Your task to perform on an android device: turn on showing notifications on the lock screen Image 0: 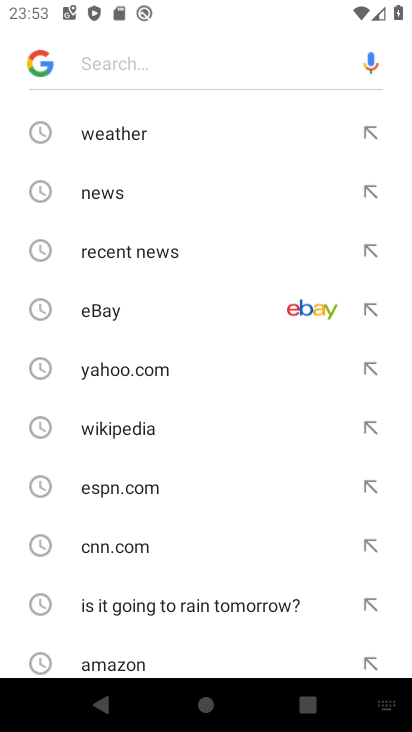
Step 0: drag from (193, 550) to (252, 185)
Your task to perform on an android device: turn on showing notifications on the lock screen Image 1: 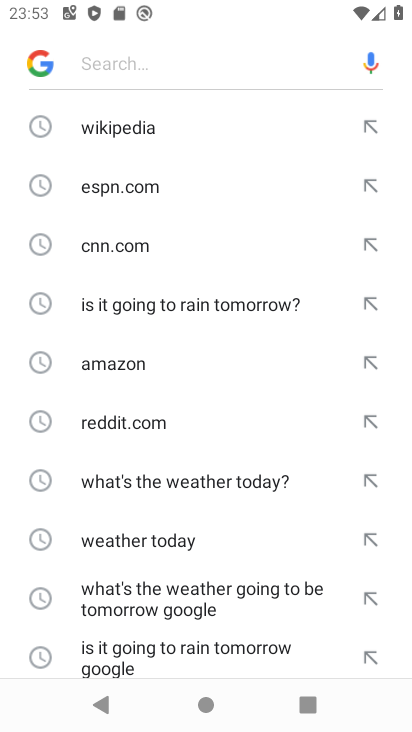
Step 1: drag from (232, 351) to (267, 726)
Your task to perform on an android device: turn on showing notifications on the lock screen Image 2: 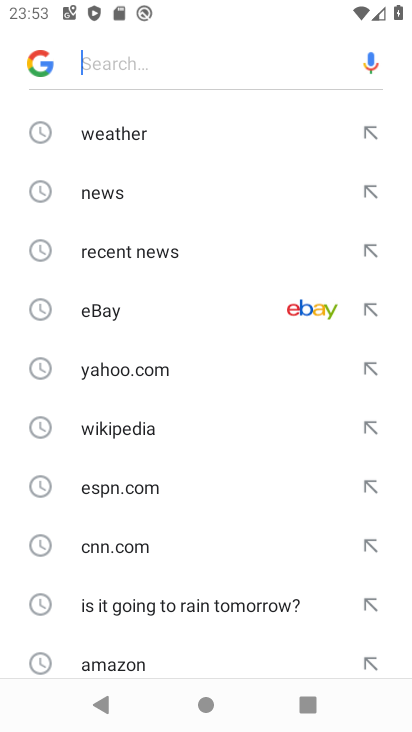
Step 2: drag from (169, 613) to (226, 299)
Your task to perform on an android device: turn on showing notifications on the lock screen Image 3: 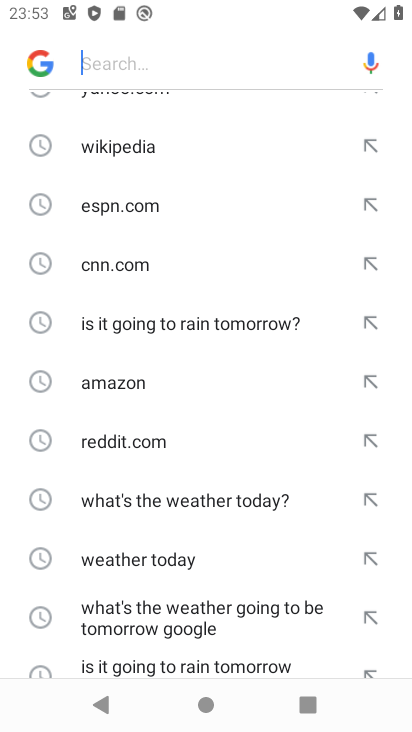
Step 3: drag from (224, 287) to (284, 726)
Your task to perform on an android device: turn on showing notifications on the lock screen Image 4: 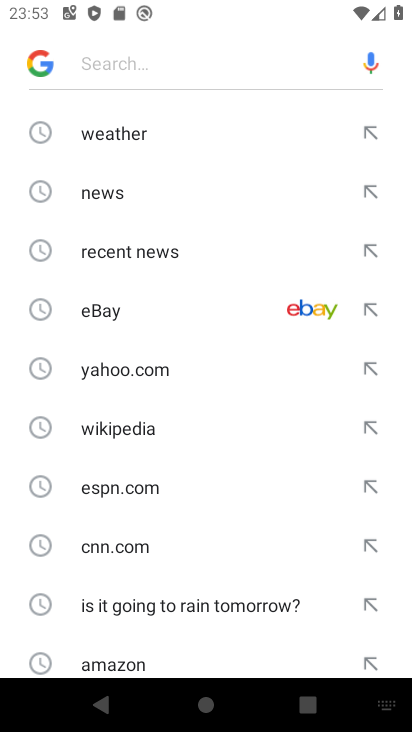
Step 4: drag from (216, 527) to (349, 189)
Your task to perform on an android device: turn on showing notifications on the lock screen Image 5: 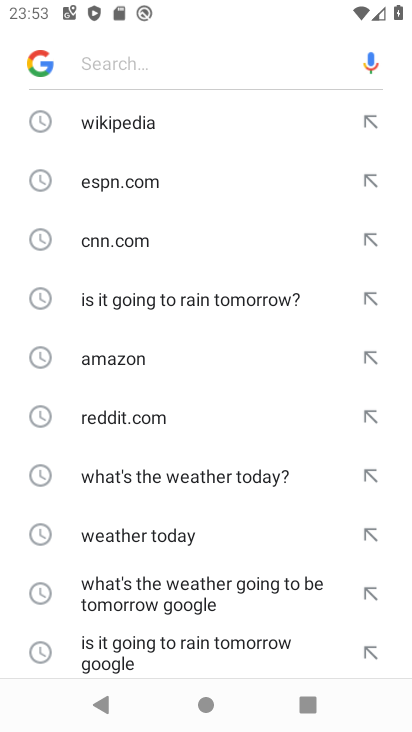
Step 5: drag from (276, 162) to (235, 692)
Your task to perform on an android device: turn on showing notifications on the lock screen Image 6: 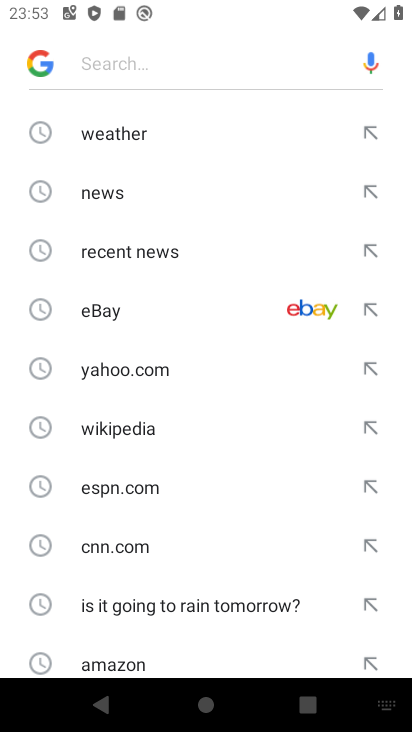
Step 6: drag from (206, 443) to (255, 191)
Your task to perform on an android device: turn on showing notifications on the lock screen Image 7: 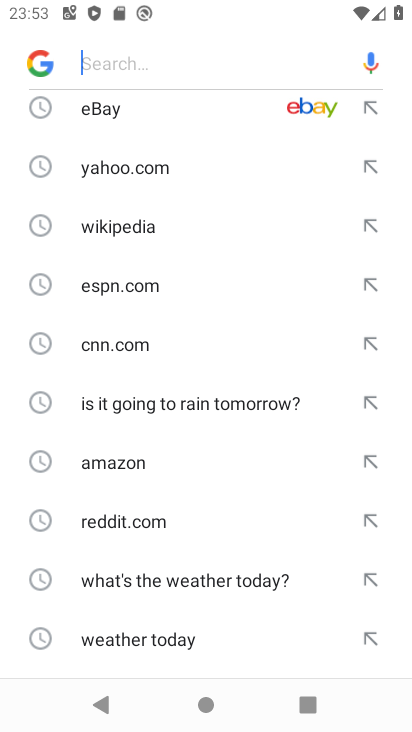
Step 7: drag from (256, 162) to (200, 695)
Your task to perform on an android device: turn on showing notifications on the lock screen Image 8: 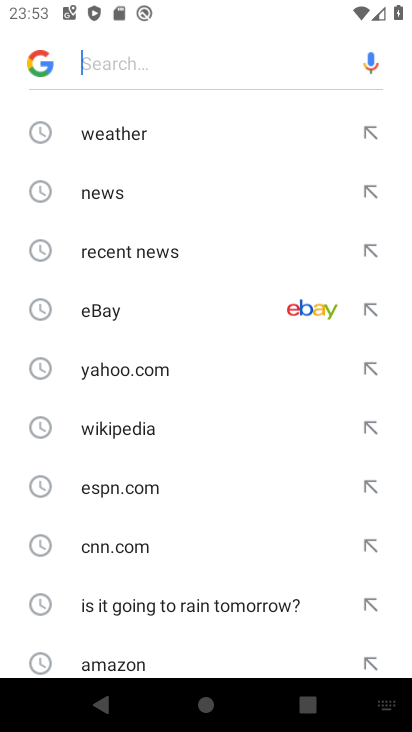
Step 8: drag from (206, 621) to (223, 289)
Your task to perform on an android device: turn on showing notifications on the lock screen Image 9: 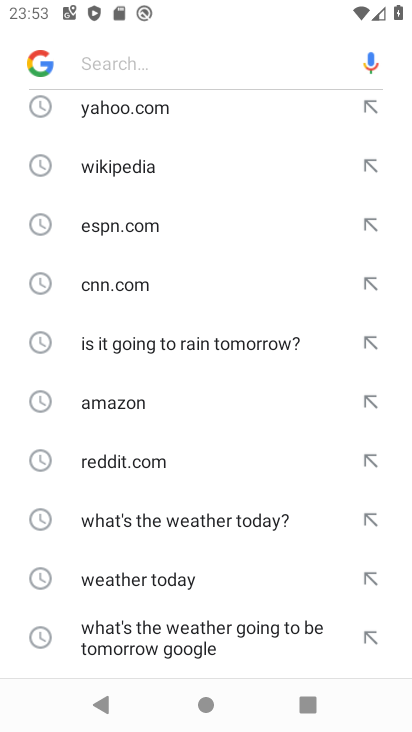
Step 9: drag from (200, 569) to (296, 195)
Your task to perform on an android device: turn on showing notifications on the lock screen Image 10: 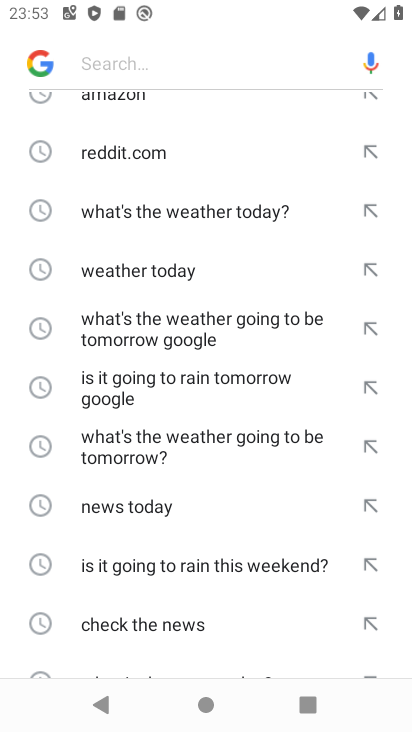
Step 10: press home button
Your task to perform on an android device: turn on showing notifications on the lock screen Image 11: 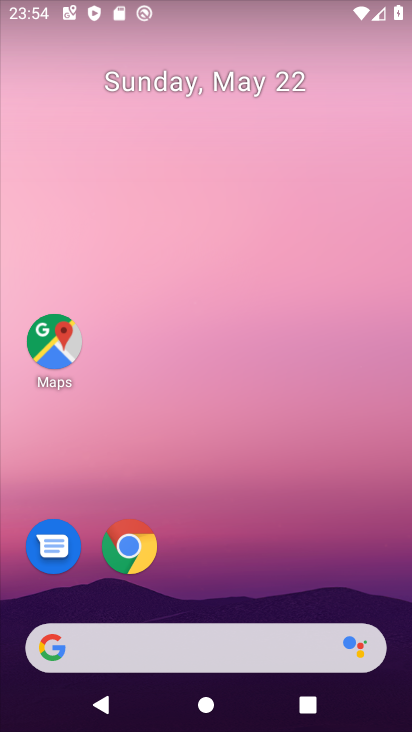
Step 11: drag from (171, 591) to (168, 302)
Your task to perform on an android device: turn on showing notifications on the lock screen Image 12: 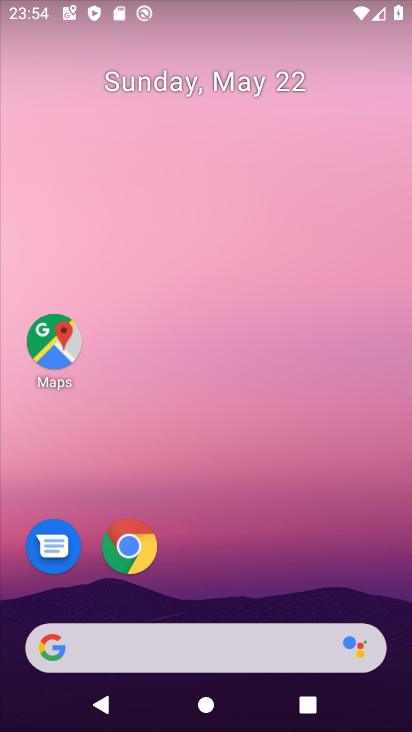
Step 12: drag from (211, 600) to (172, 2)
Your task to perform on an android device: turn on showing notifications on the lock screen Image 13: 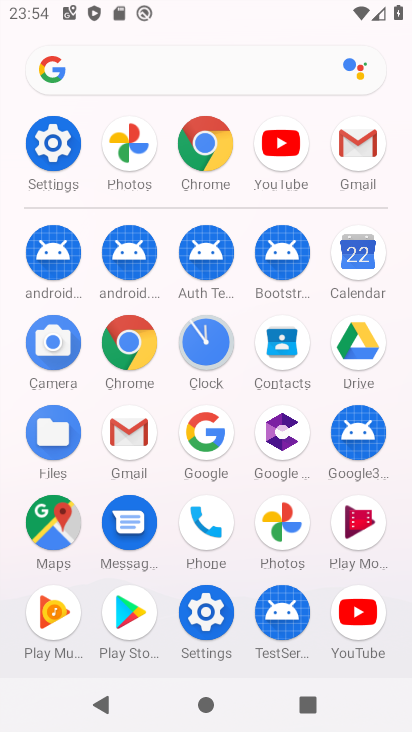
Step 13: click (41, 147)
Your task to perform on an android device: turn on showing notifications on the lock screen Image 14: 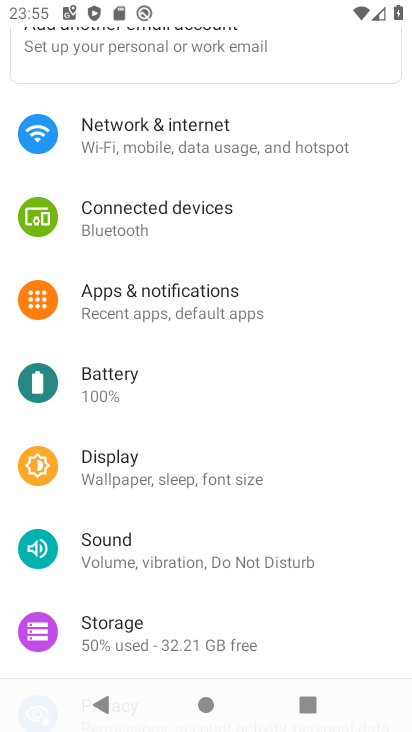
Step 14: drag from (226, 564) to (262, 133)
Your task to perform on an android device: turn on showing notifications on the lock screen Image 15: 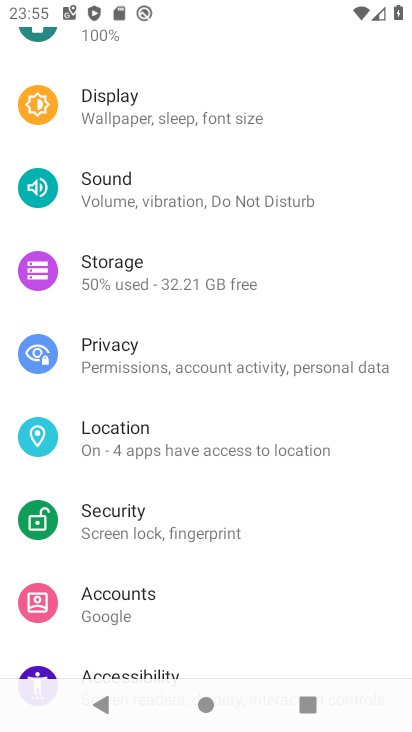
Step 15: drag from (230, 444) to (259, 142)
Your task to perform on an android device: turn on showing notifications on the lock screen Image 16: 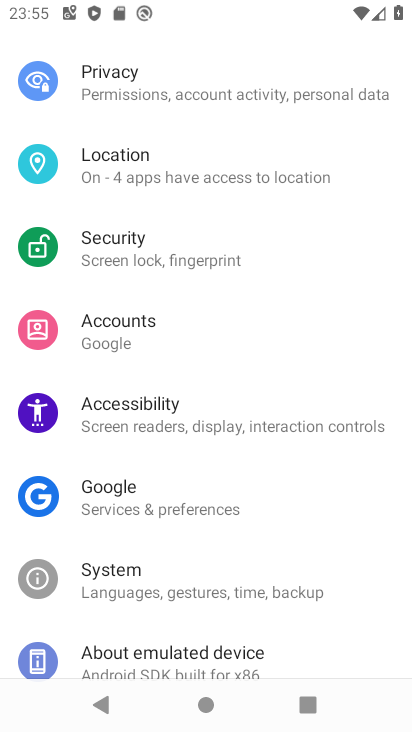
Step 16: drag from (192, 122) to (277, 731)
Your task to perform on an android device: turn on showing notifications on the lock screen Image 17: 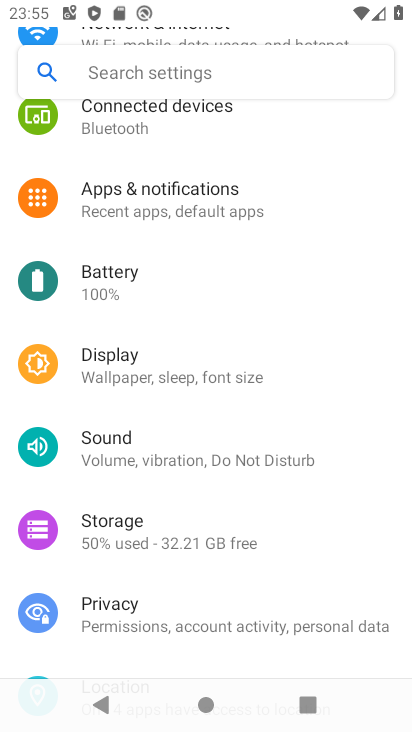
Step 17: click (177, 196)
Your task to perform on an android device: turn on showing notifications on the lock screen Image 18: 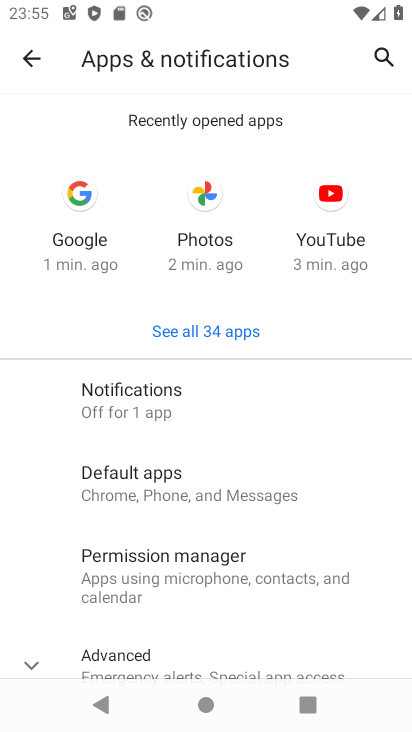
Step 18: drag from (238, 541) to (282, 237)
Your task to perform on an android device: turn on showing notifications on the lock screen Image 19: 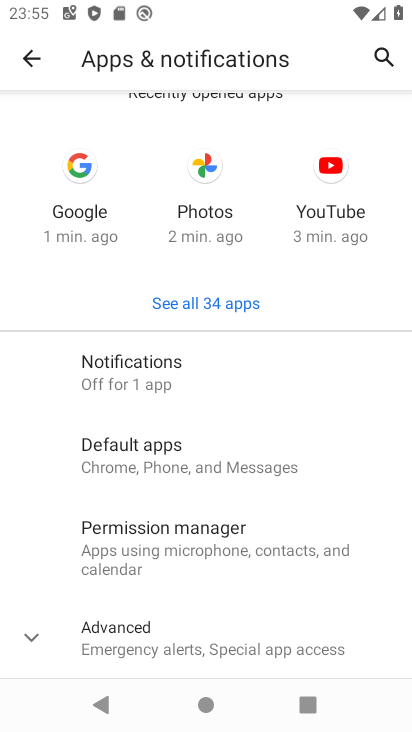
Step 19: click (200, 378)
Your task to perform on an android device: turn on showing notifications on the lock screen Image 20: 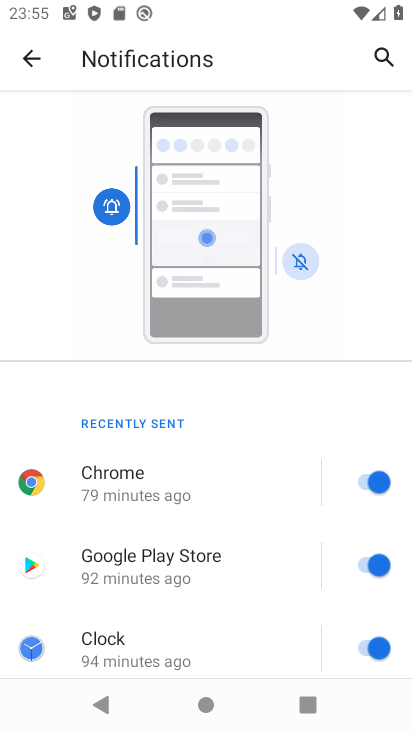
Step 20: drag from (226, 551) to (271, 225)
Your task to perform on an android device: turn on showing notifications on the lock screen Image 21: 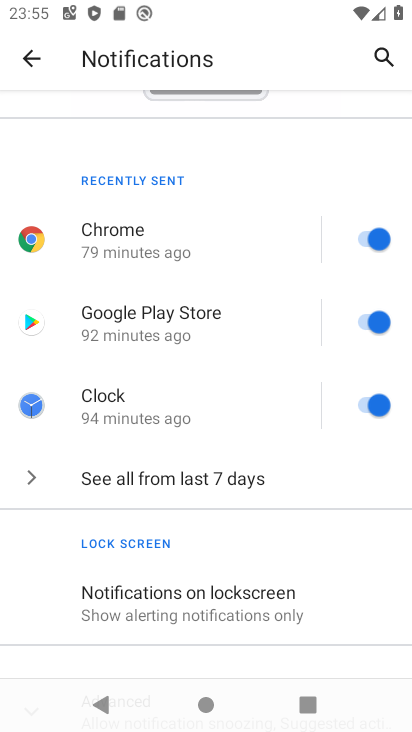
Step 21: click (214, 601)
Your task to perform on an android device: turn on showing notifications on the lock screen Image 22: 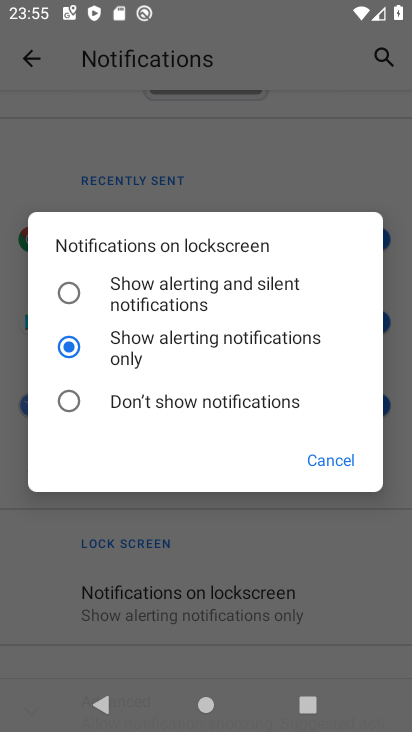
Step 22: click (278, 293)
Your task to perform on an android device: turn on showing notifications on the lock screen Image 23: 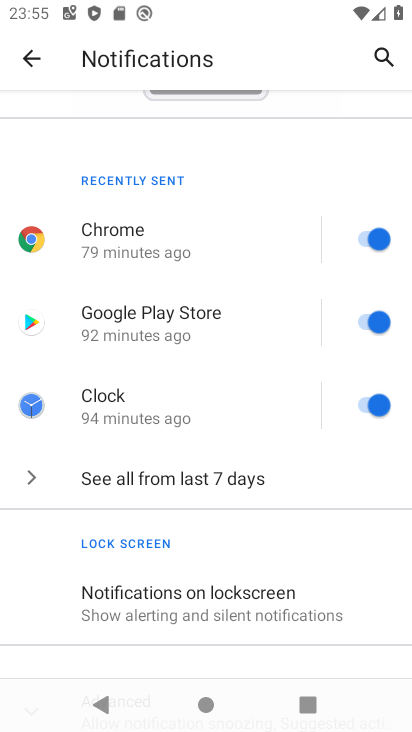
Step 23: click (203, 602)
Your task to perform on an android device: turn on showing notifications on the lock screen Image 24: 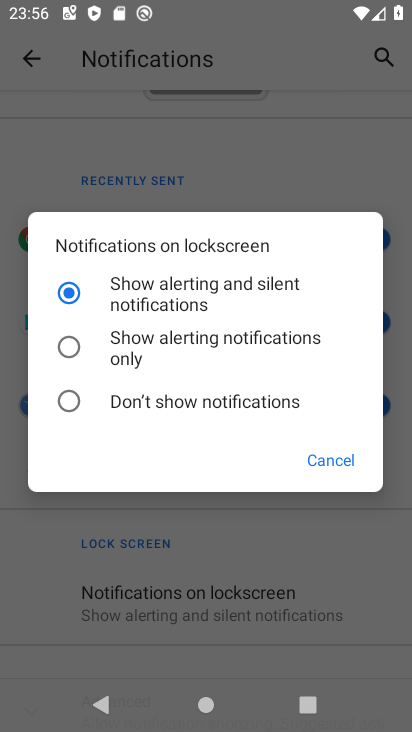
Step 24: click (99, 346)
Your task to perform on an android device: turn on showing notifications on the lock screen Image 25: 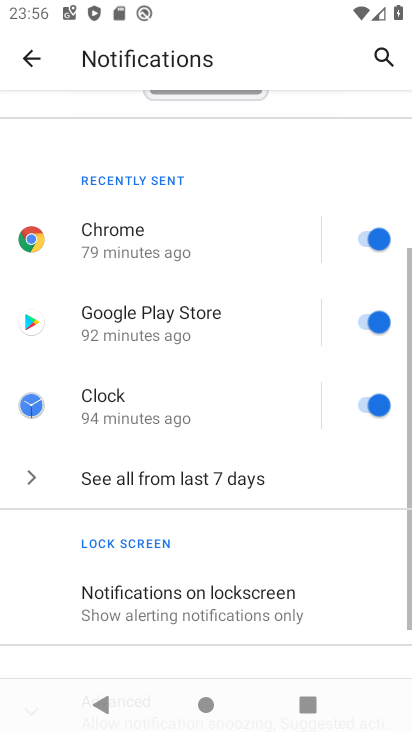
Step 25: task complete